Your task to perform on an android device: Search for sushi restaurants on Maps Image 0: 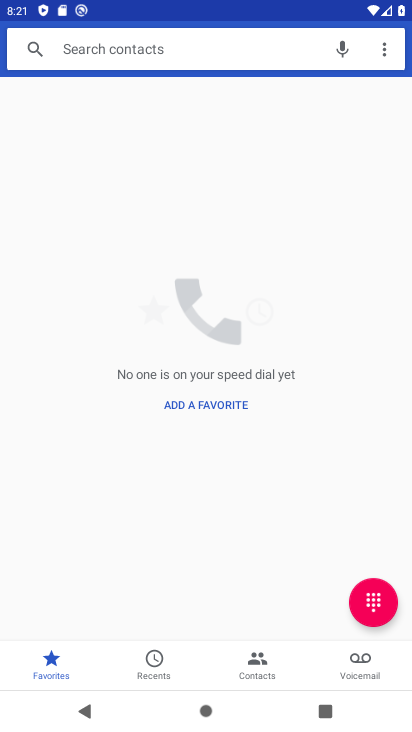
Step 0: press home button
Your task to perform on an android device: Search for sushi restaurants on Maps Image 1: 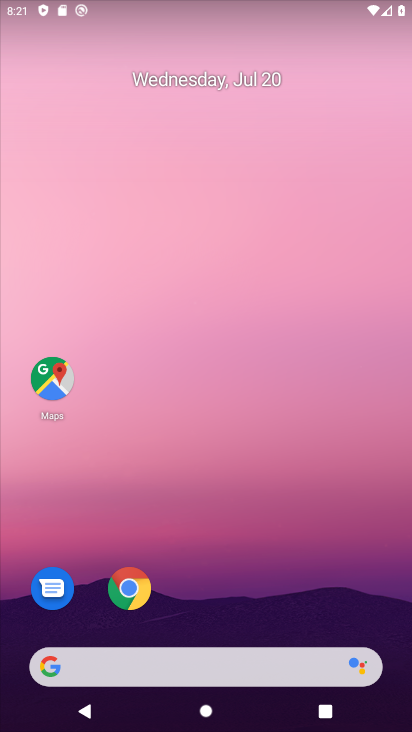
Step 1: click (56, 373)
Your task to perform on an android device: Search for sushi restaurants on Maps Image 2: 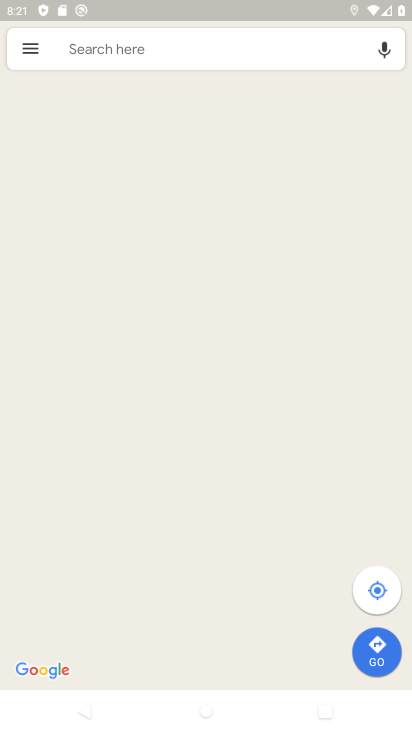
Step 2: click (107, 47)
Your task to perform on an android device: Search for sushi restaurants on Maps Image 3: 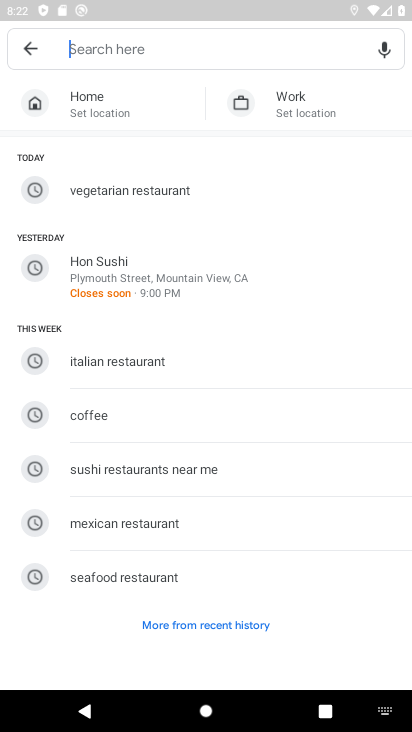
Step 3: click (140, 474)
Your task to perform on an android device: Search for sushi restaurants on Maps Image 4: 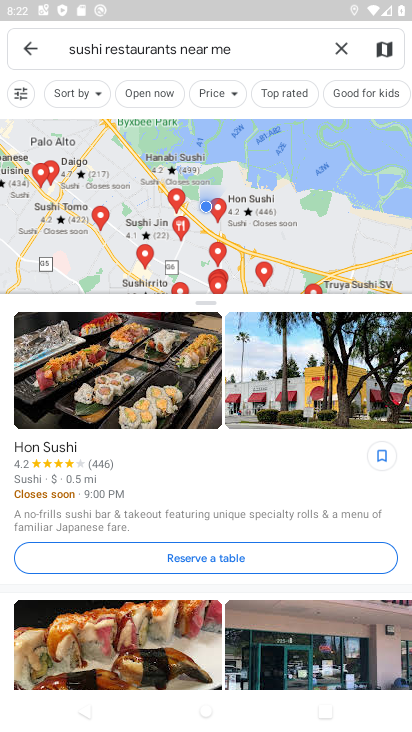
Step 4: task complete